Your task to perform on an android device: Open Wikipedia Image 0: 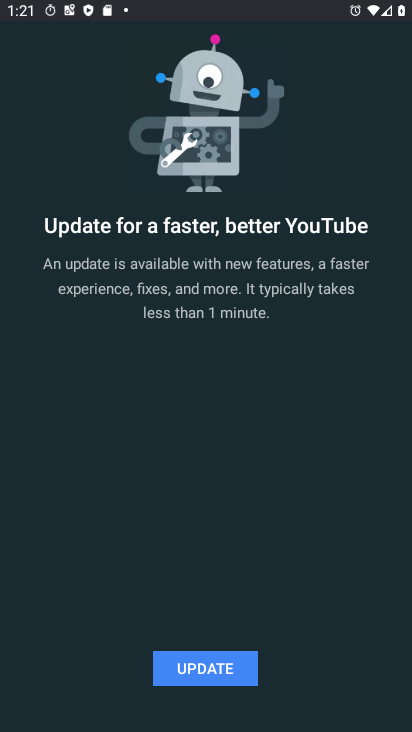
Step 0: press home button
Your task to perform on an android device: Open Wikipedia Image 1: 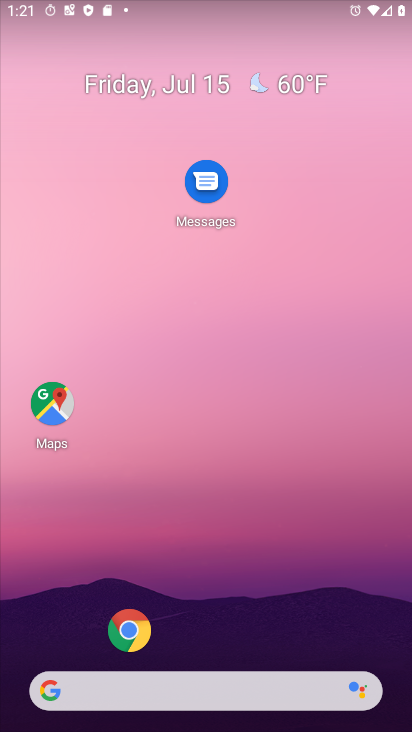
Step 1: click (83, 688)
Your task to perform on an android device: Open Wikipedia Image 2: 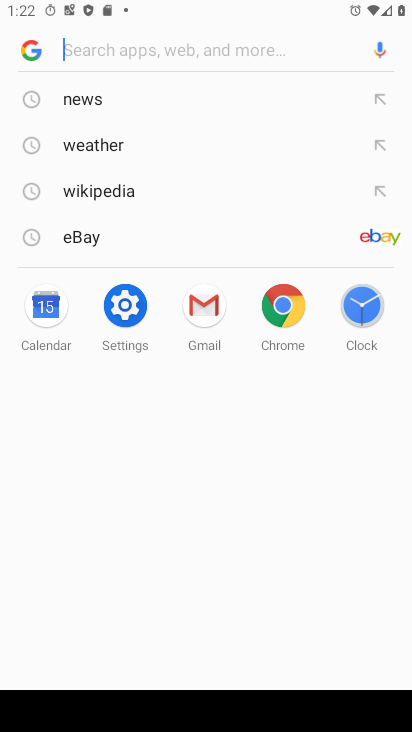
Step 2: click (99, 194)
Your task to perform on an android device: Open Wikipedia Image 3: 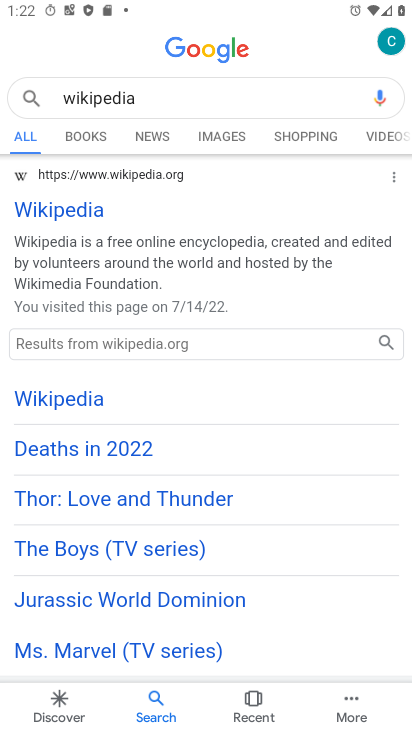
Step 3: task complete